Your task to perform on an android device: turn off priority inbox in the gmail app Image 0: 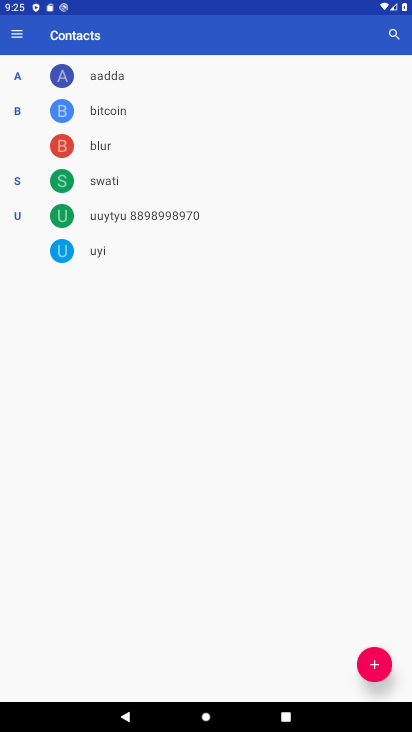
Step 0: press home button
Your task to perform on an android device: turn off priority inbox in the gmail app Image 1: 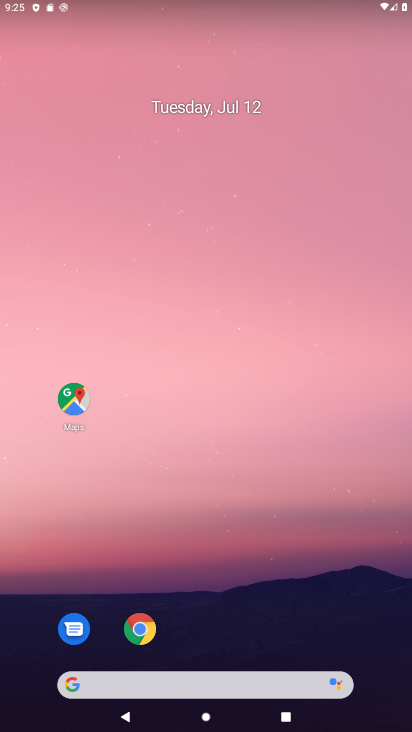
Step 1: drag from (271, 489) to (220, 1)
Your task to perform on an android device: turn off priority inbox in the gmail app Image 2: 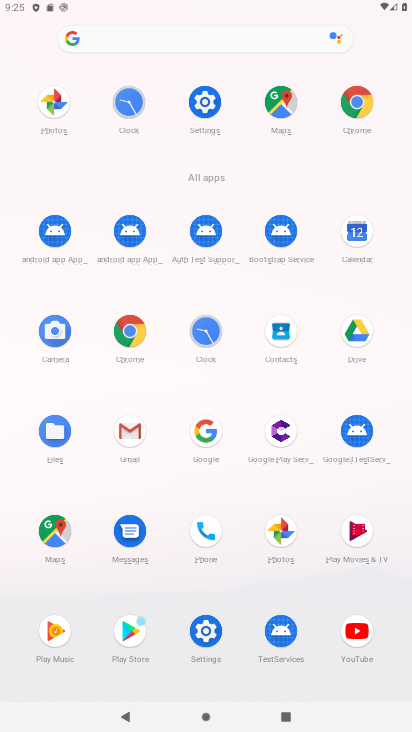
Step 2: click (130, 429)
Your task to perform on an android device: turn off priority inbox in the gmail app Image 3: 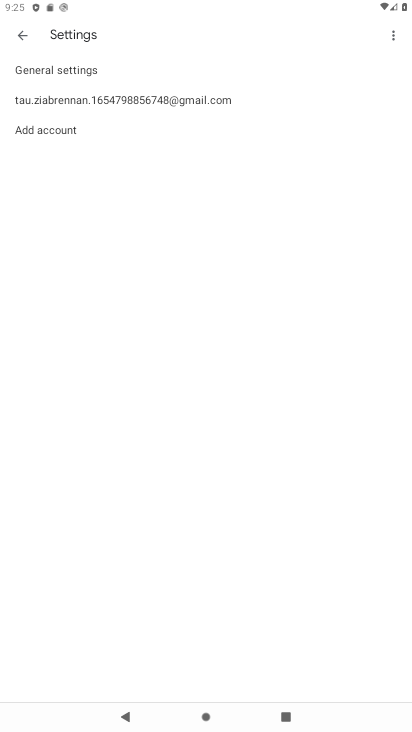
Step 3: click (150, 93)
Your task to perform on an android device: turn off priority inbox in the gmail app Image 4: 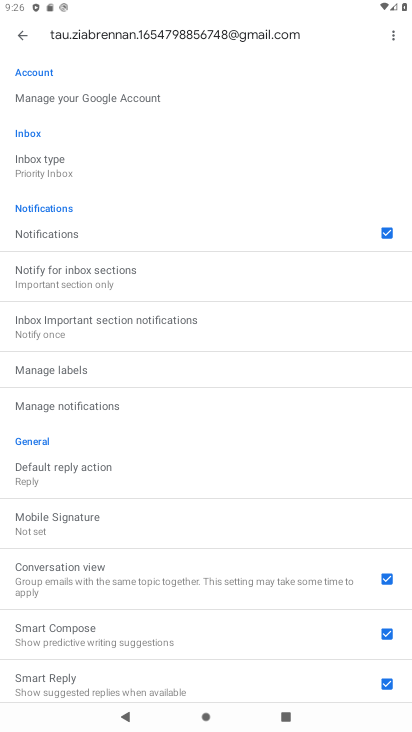
Step 4: click (60, 166)
Your task to perform on an android device: turn off priority inbox in the gmail app Image 5: 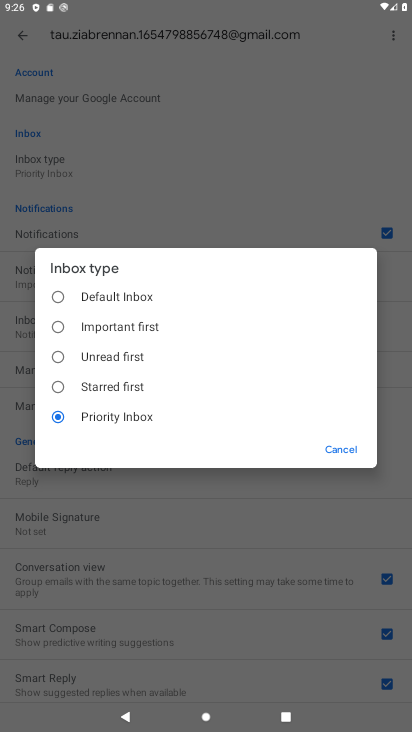
Step 5: task complete